Your task to perform on an android device: clear history in the chrome app Image 0: 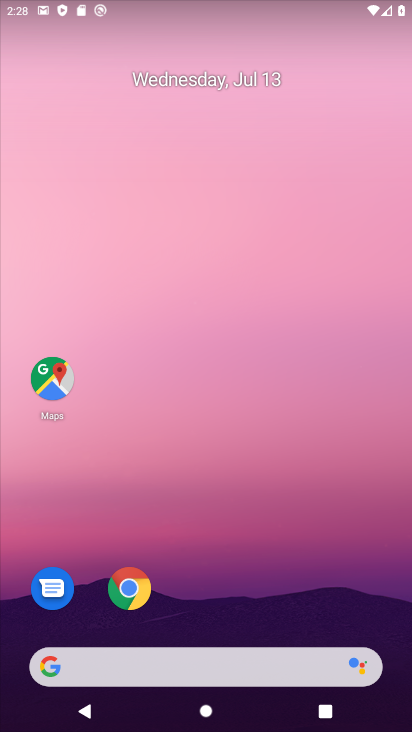
Step 0: drag from (240, 687) to (177, 324)
Your task to perform on an android device: clear history in the chrome app Image 1: 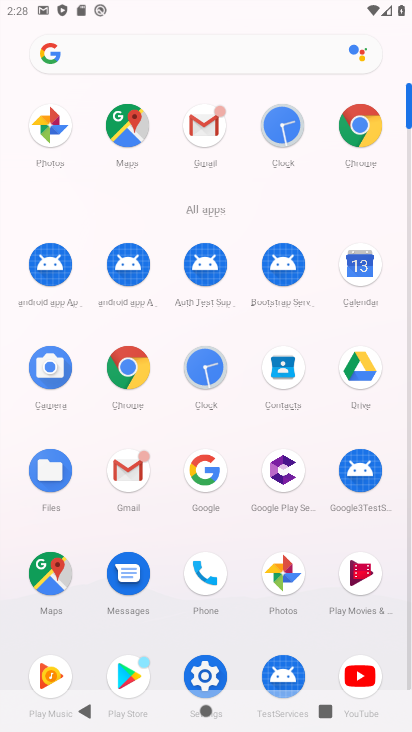
Step 1: click (117, 356)
Your task to perform on an android device: clear history in the chrome app Image 2: 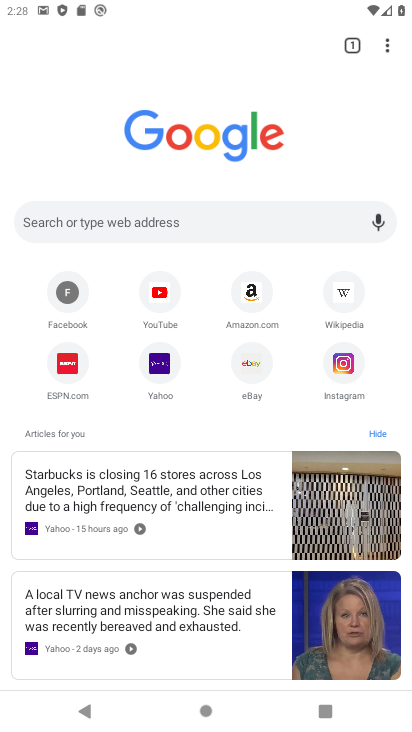
Step 2: drag from (385, 39) to (221, 377)
Your task to perform on an android device: clear history in the chrome app Image 3: 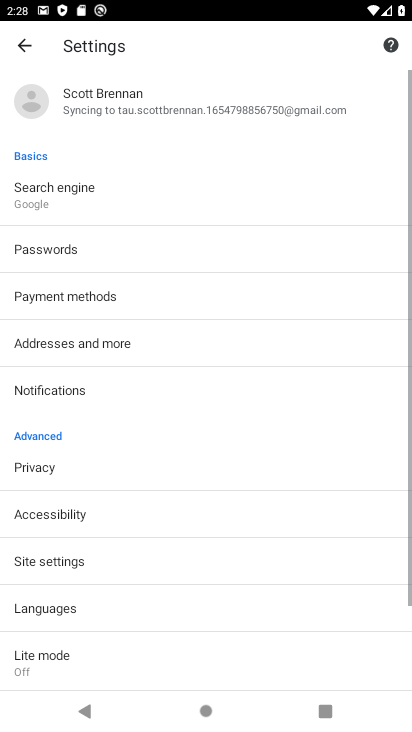
Step 3: click (220, 379)
Your task to perform on an android device: clear history in the chrome app Image 4: 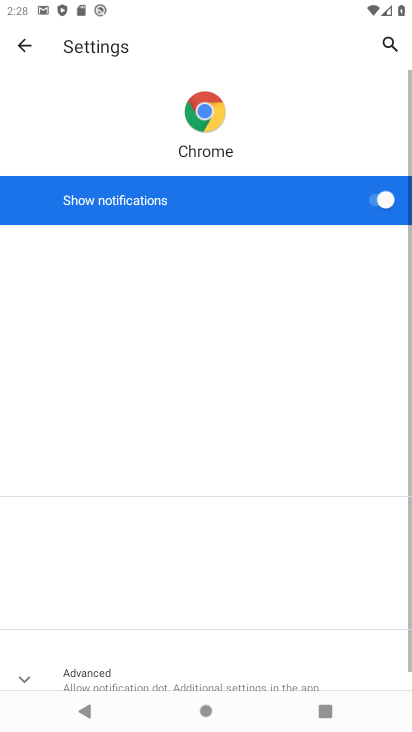
Step 4: press back button
Your task to perform on an android device: clear history in the chrome app Image 5: 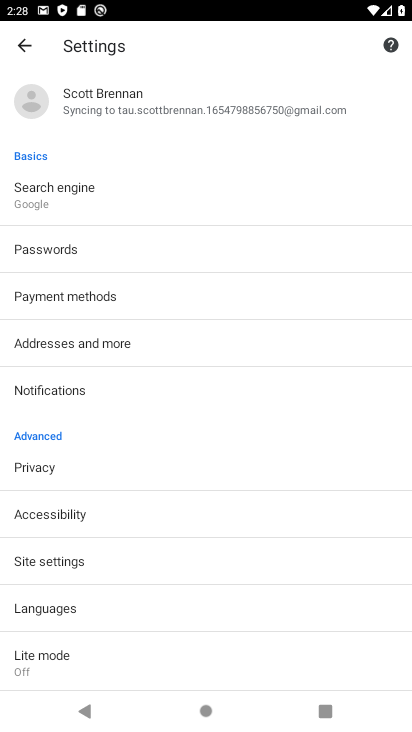
Step 5: click (21, 42)
Your task to perform on an android device: clear history in the chrome app Image 6: 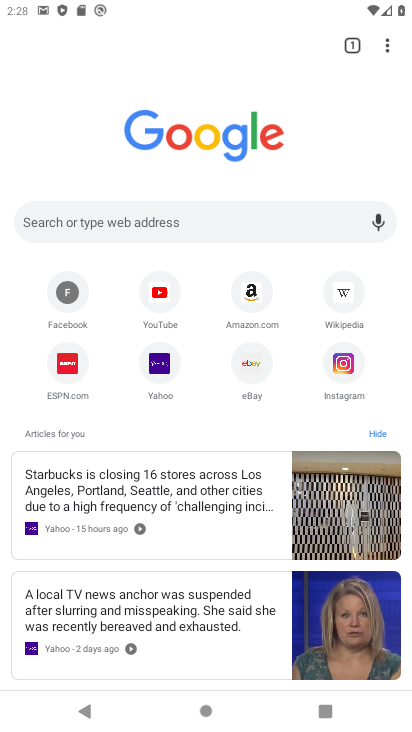
Step 6: click (388, 44)
Your task to perform on an android device: clear history in the chrome app Image 7: 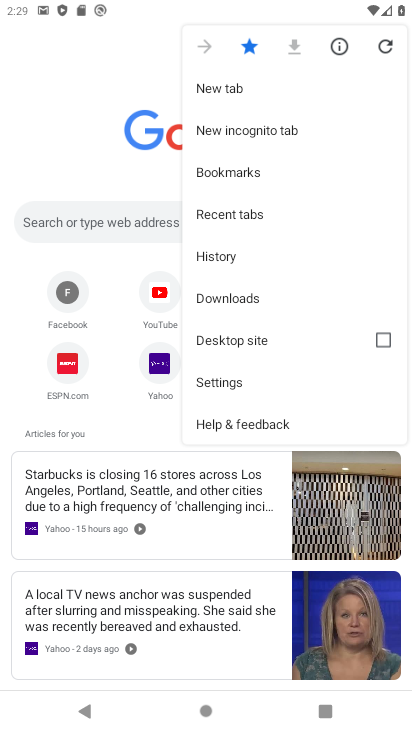
Step 7: click (215, 253)
Your task to perform on an android device: clear history in the chrome app Image 8: 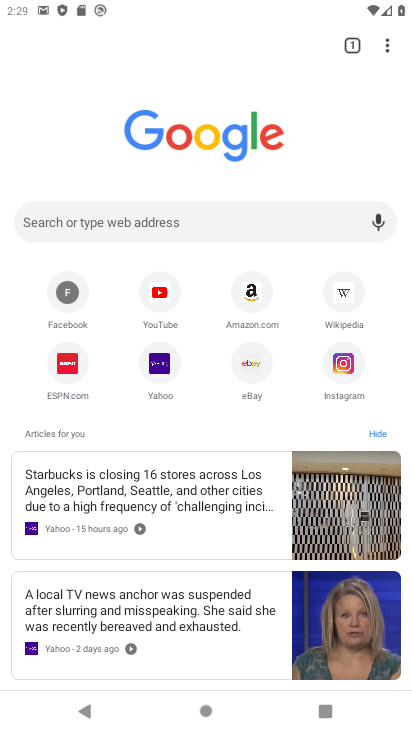
Step 8: click (218, 261)
Your task to perform on an android device: clear history in the chrome app Image 9: 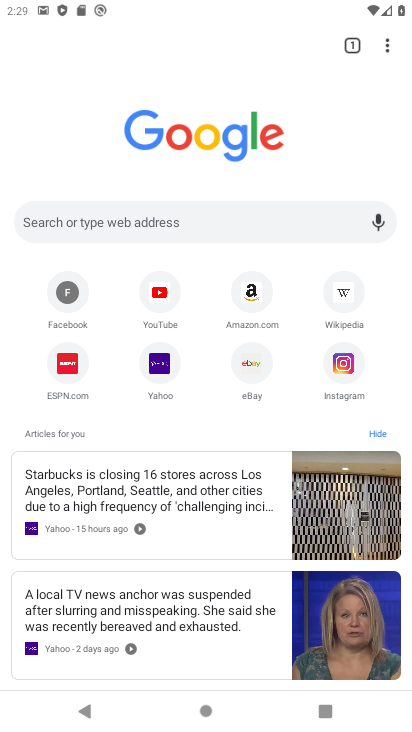
Step 9: click (218, 265)
Your task to perform on an android device: clear history in the chrome app Image 10: 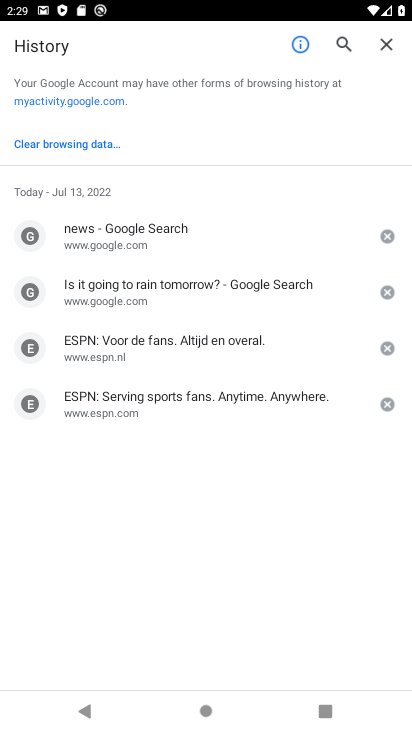
Step 10: click (74, 139)
Your task to perform on an android device: clear history in the chrome app Image 11: 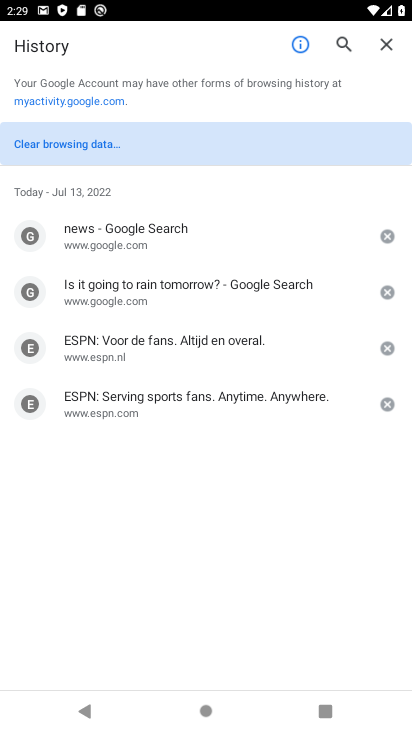
Step 11: click (81, 156)
Your task to perform on an android device: clear history in the chrome app Image 12: 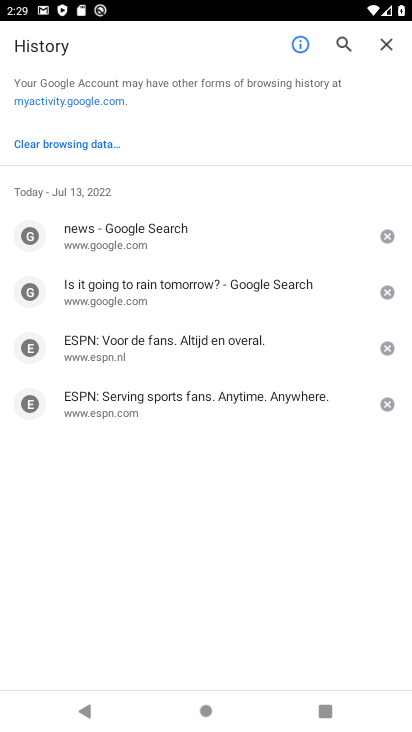
Step 12: click (80, 157)
Your task to perform on an android device: clear history in the chrome app Image 13: 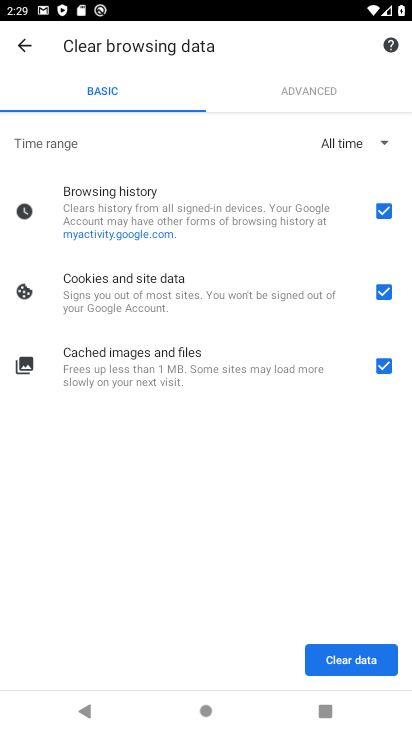
Step 13: click (352, 648)
Your task to perform on an android device: clear history in the chrome app Image 14: 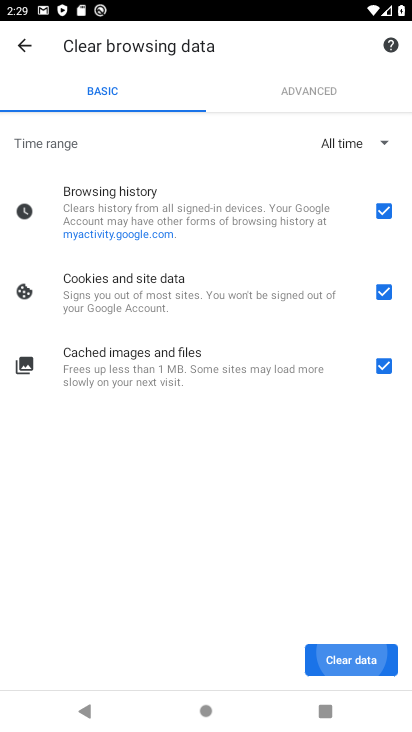
Step 14: click (352, 648)
Your task to perform on an android device: clear history in the chrome app Image 15: 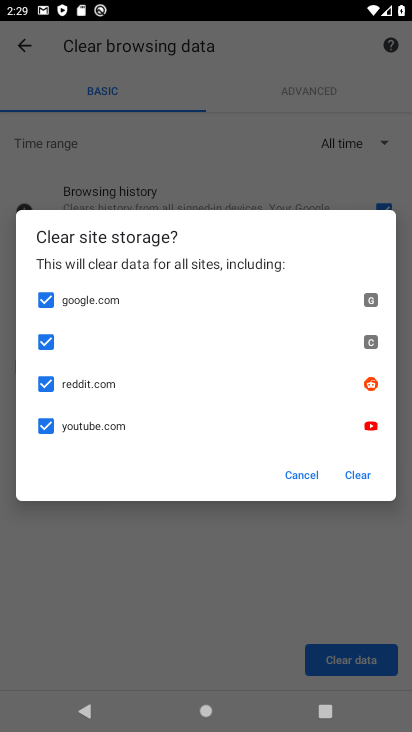
Step 15: click (355, 471)
Your task to perform on an android device: clear history in the chrome app Image 16: 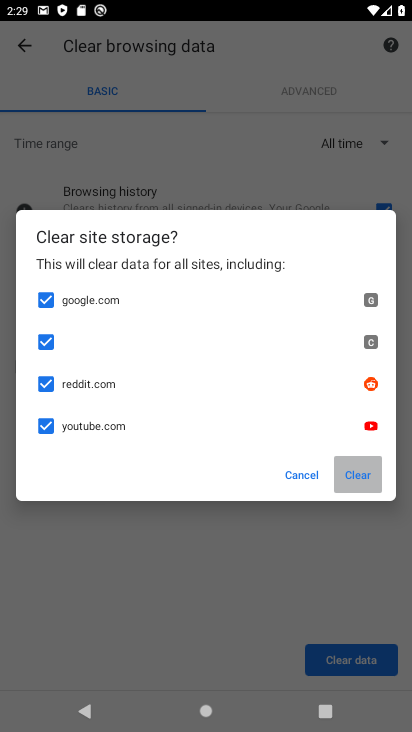
Step 16: click (356, 470)
Your task to perform on an android device: clear history in the chrome app Image 17: 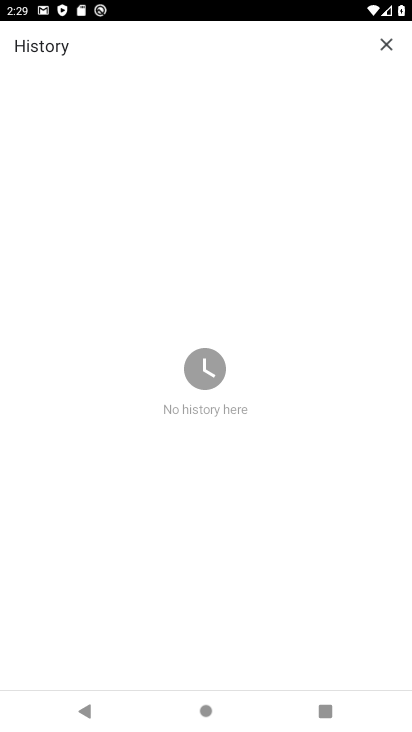
Step 17: task complete